Your task to perform on an android device: Open the web browser Image 0: 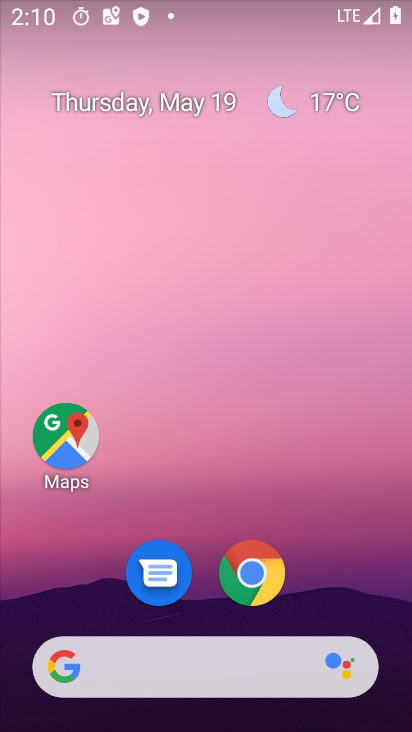
Step 0: click (247, 573)
Your task to perform on an android device: Open the web browser Image 1: 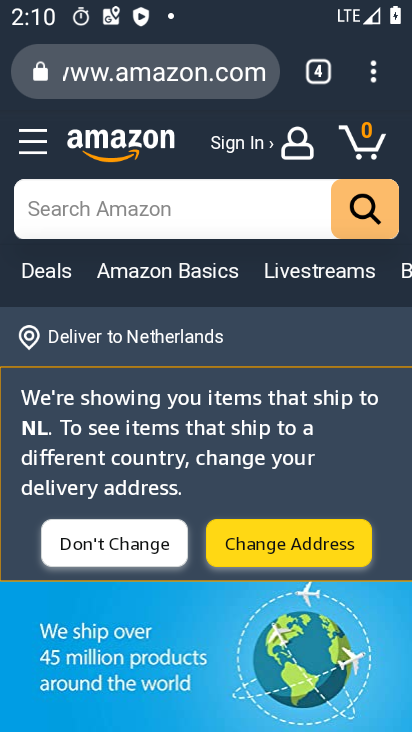
Step 1: task complete